Your task to perform on an android device: allow notifications from all sites in the chrome app Image 0: 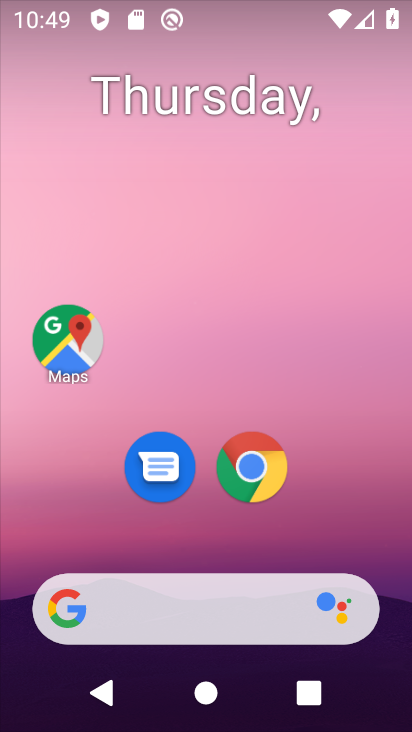
Step 0: click (257, 472)
Your task to perform on an android device: allow notifications from all sites in the chrome app Image 1: 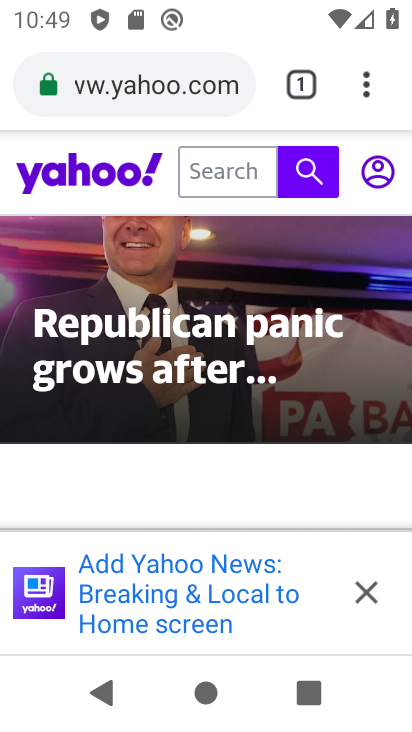
Step 1: click (368, 88)
Your task to perform on an android device: allow notifications from all sites in the chrome app Image 2: 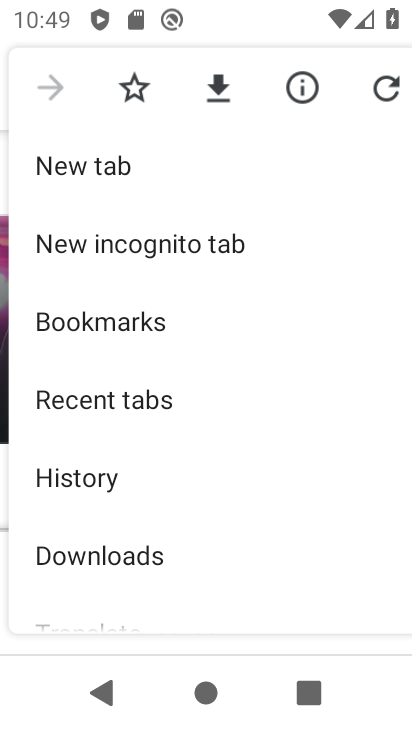
Step 2: drag from (192, 514) to (204, 170)
Your task to perform on an android device: allow notifications from all sites in the chrome app Image 3: 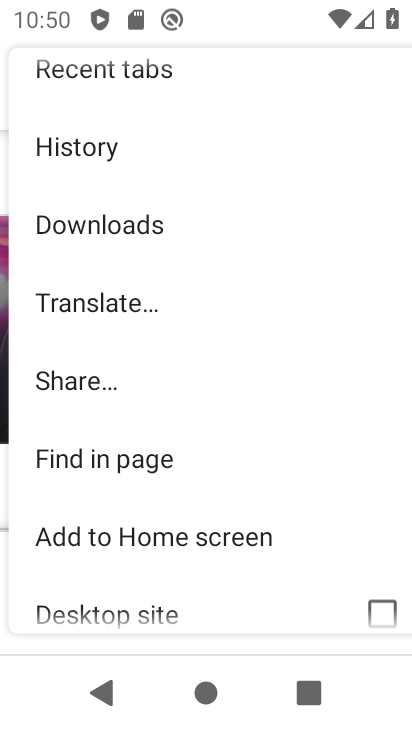
Step 3: drag from (203, 486) to (167, 111)
Your task to perform on an android device: allow notifications from all sites in the chrome app Image 4: 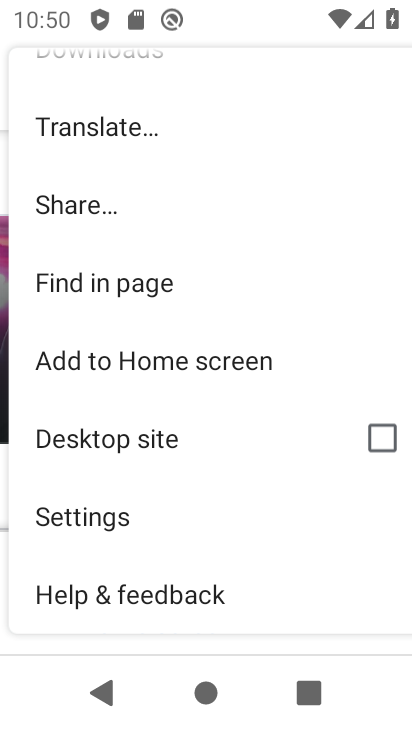
Step 4: click (91, 525)
Your task to perform on an android device: allow notifications from all sites in the chrome app Image 5: 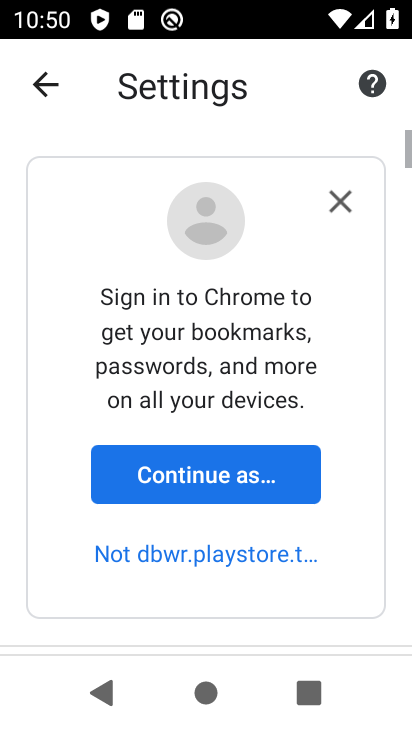
Step 5: drag from (183, 579) to (173, 213)
Your task to perform on an android device: allow notifications from all sites in the chrome app Image 6: 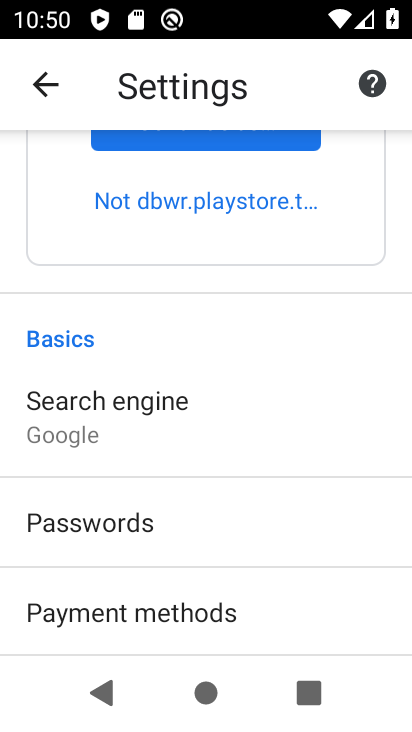
Step 6: drag from (221, 542) to (228, 121)
Your task to perform on an android device: allow notifications from all sites in the chrome app Image 7: 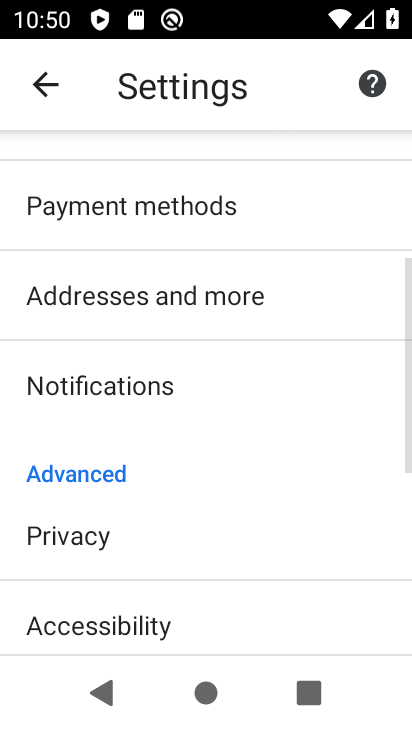
Step 7: drag from (184, 474) to (183, 191)
Your task to perform on an android device: allow notifications from all sites in the chrome app Image 8: 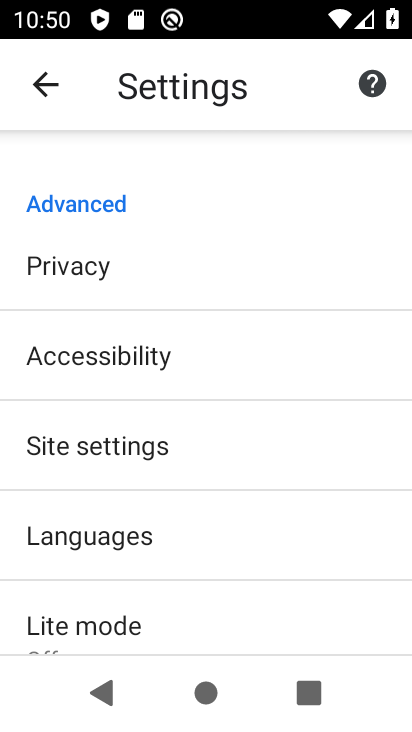
Step 8: click (113, 446)
Your task to perform on an android device: allow notifications from all sites in the chrome app Image 9: 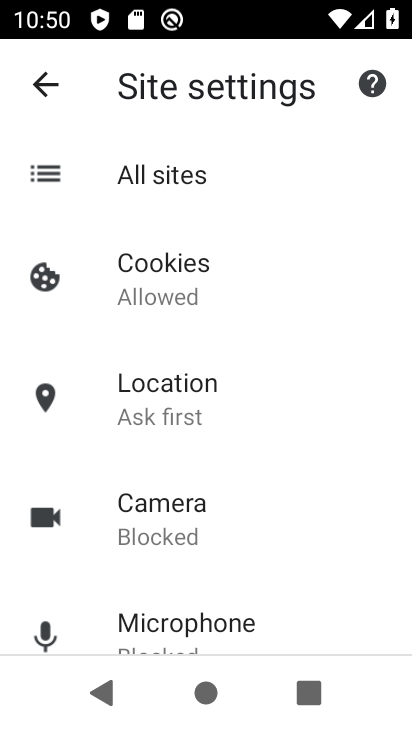
Step 9: drag from (222, 546) to (236, 261)
Your task to perform on an android device: allow notifications from all sites in the chrome app Image 10: 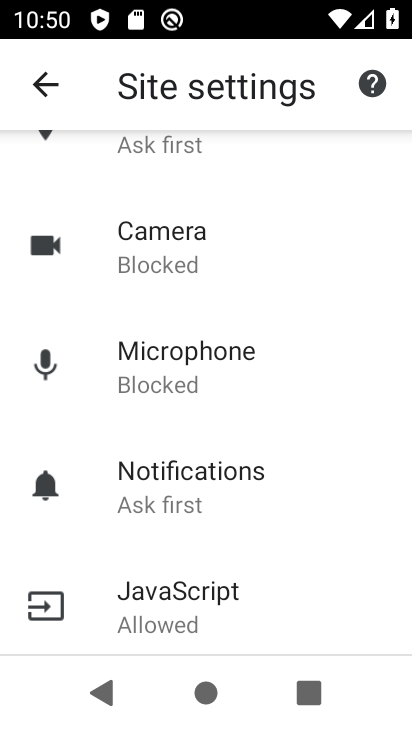
Step 10: click (187, 473)
Your task to perform on an android device: allow notifications from all sites in the chrome app Image 11: 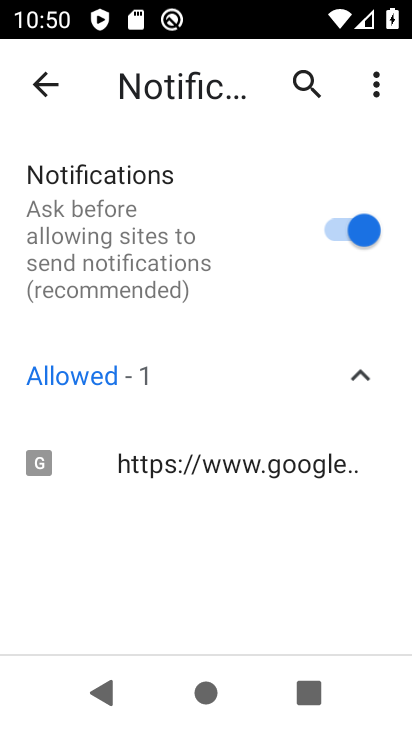
Step 11: task complete